Your task to perform on an android device: Go to settings Image 0: 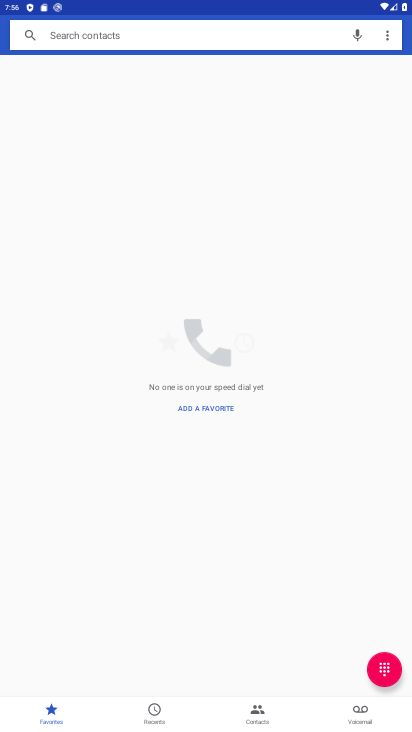
Step 0: press home button
Your task to perform on an android device: Go to settings Image 1: 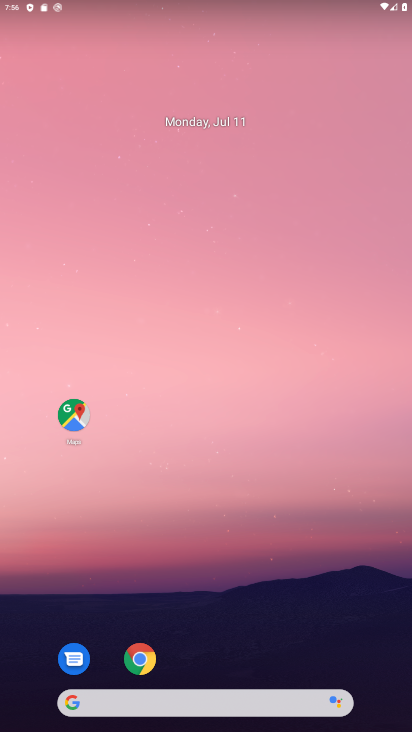
Step 1: drag from (26, 684) to (307, 76)
Your task to perform on an android device: Go to settings Image 2: 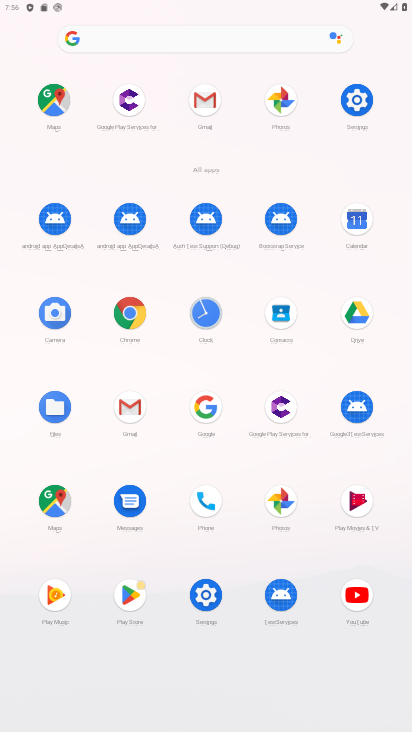
Step 2: click (204, 590)
Your task to perform on an android device: Go to settings Image 3: 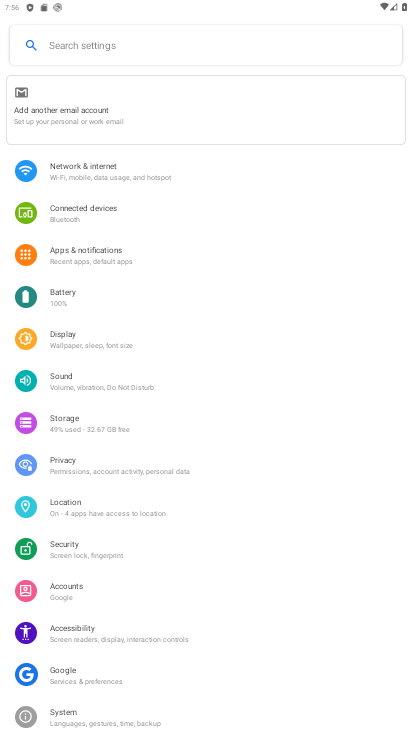
Step 3: task complete